Your task to perform on an android device: Open the stopwatch Image 0: 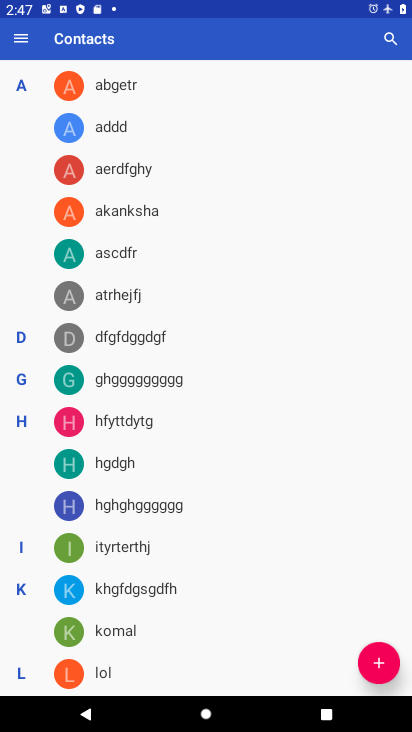
Step 0: press home button
Your task to perform on an android device: Open the stopwatch Image 1: 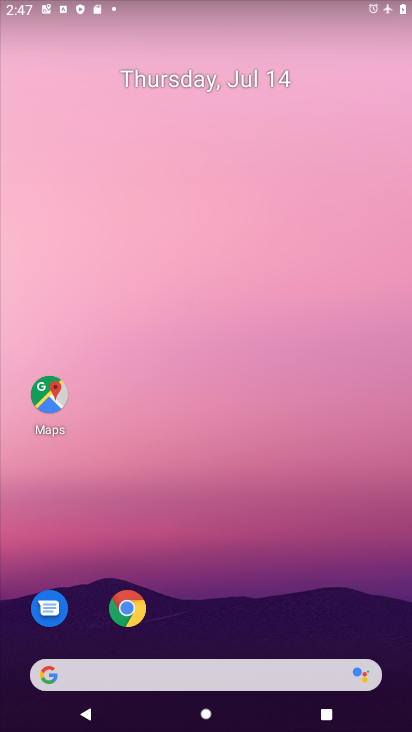
Step 1: drag from (384, 628) to (322, 172)
Your task to perform on an android device: Open the stopwatch Image 2: 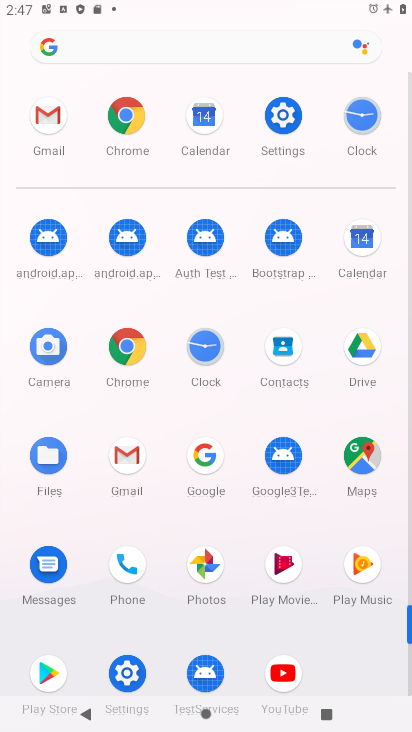
Step 2: click (205, 348)
Your task to perform on an android device: Open the stopwatch Image 3: 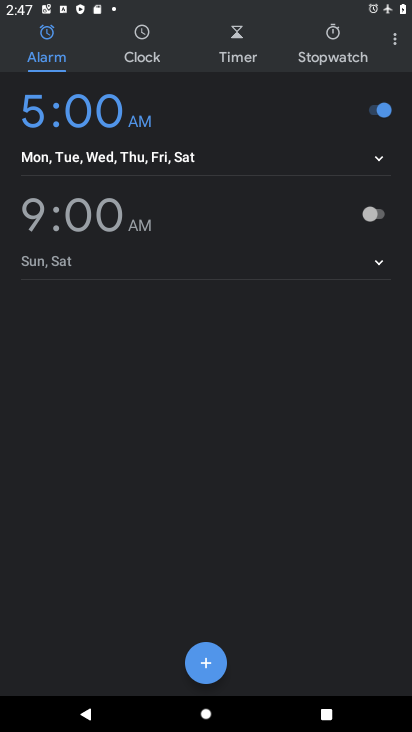
Step 3: click (334, 36)
Your task to perform on an android device: Open the stopwatch Image 4: 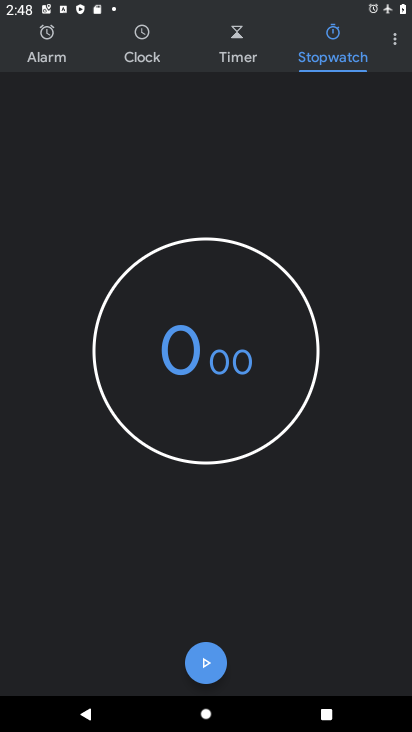
Step 4: task complete